Your task to perform on an android device: Is it going to rain tomorrow? Image 0: 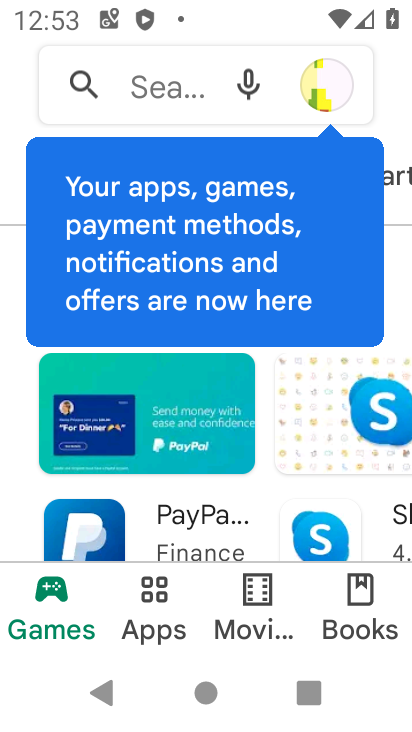
Step 0: press home button
Your task to perform on an android device: Is it going to rain tomorrow? Image 1: 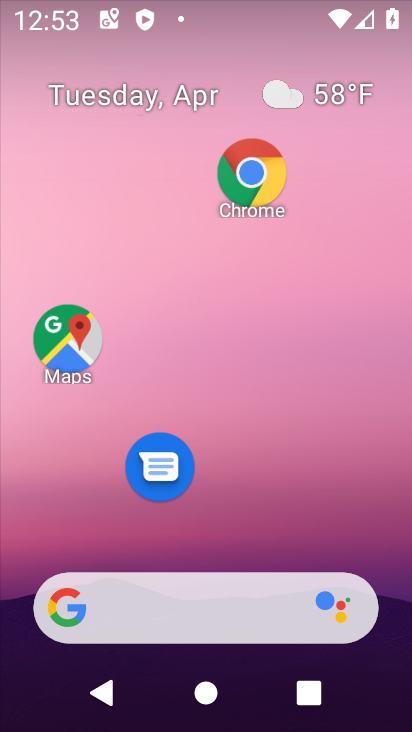
Step 1: drag from (288, 534) to (339, 122)
Your task to perform on an android device: Is it going to rain tomorrow? Image 2: 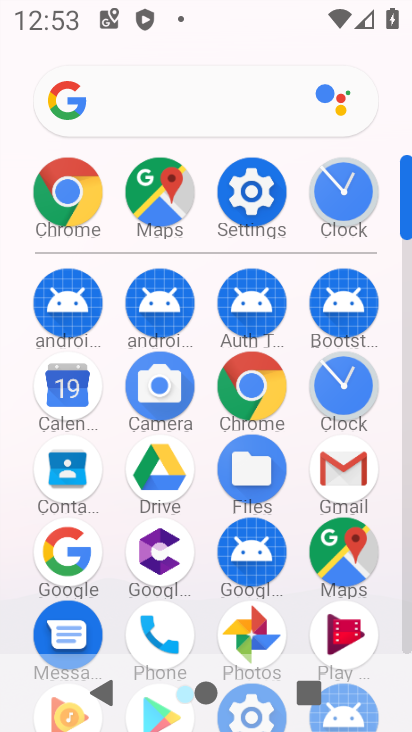
Step 2: click (238, 393)
Your task to perform on an android device: Is it going to rain tomorrow? Image 3: 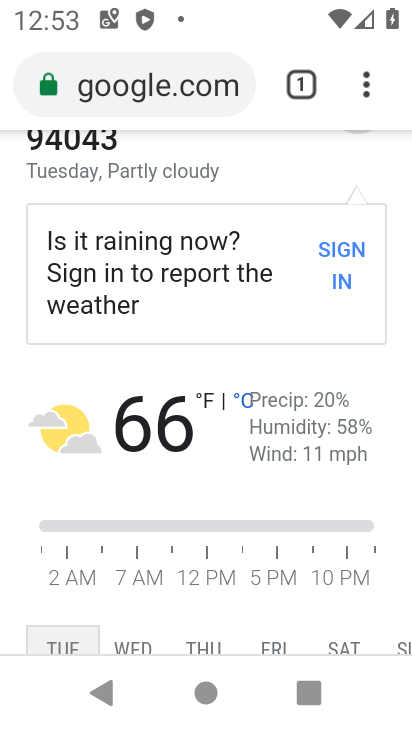
Step 3: click (199, 93)
Your task to perform on an android device: Is it going to rain tomorrow? Image 4: 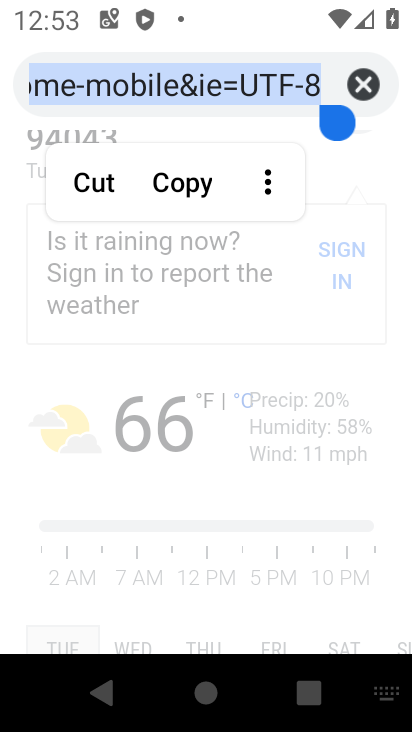
Step 4: click (364, 77)
Your task to perform on an android device: Is it going to rain tomorrow? Image 5: 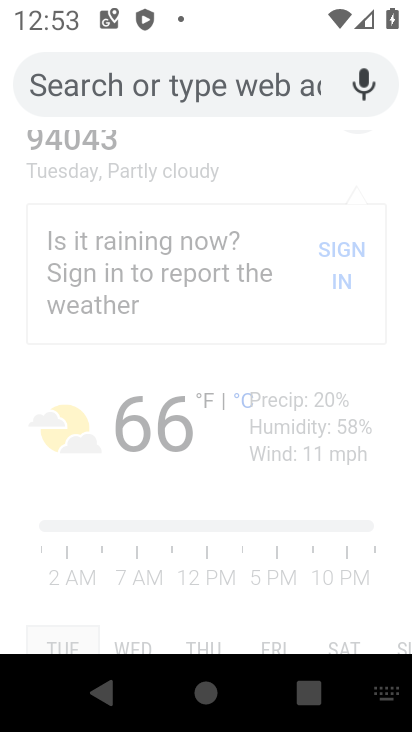
Step 5: type "rain tomorrow"
Your task to perform on an android device: Is it going to rain tomorrow? Image 6: 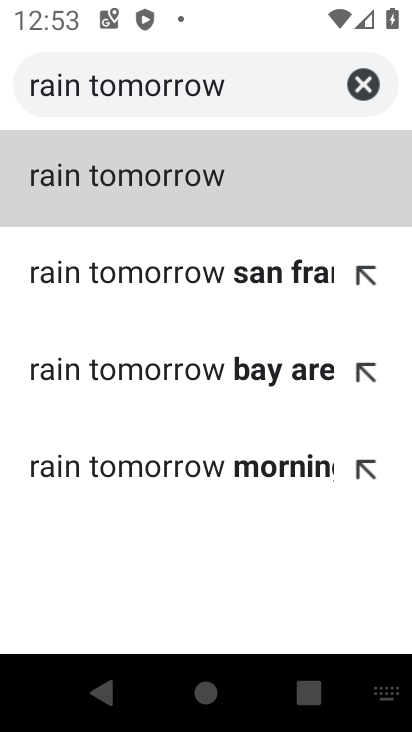
Step 6: click (150, 163)
Your task to perform on an android device: Is it going to rain tomorrow? Image 7: 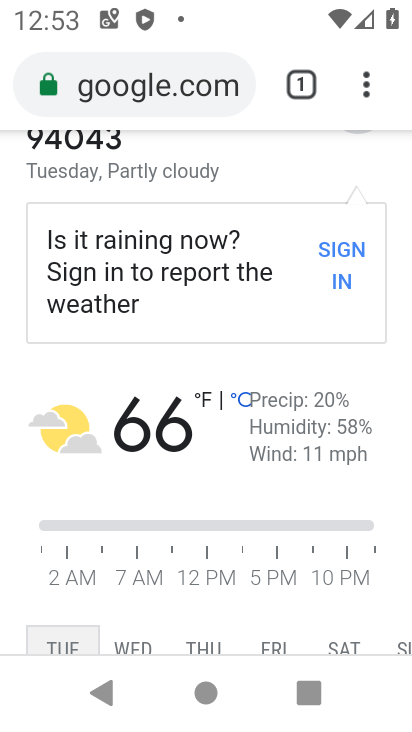
Step 7: task complete